Your task to perform on an android device: turn off data saver in the chrome app Image 0: 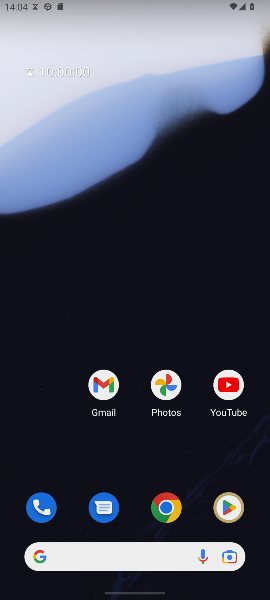
Step 0: press home button
Your task to perform on an android device: turn off data saver in the chrome app Image 1: 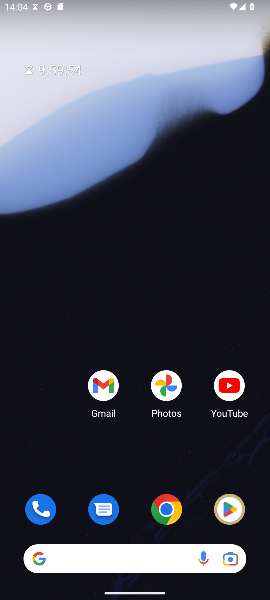
Step 1: click (167, 509)
Your task to perform on an android device: turn off data saver in the chrome app Image 2: 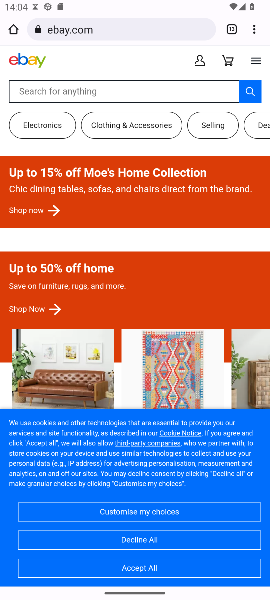
Step 2: task complete